Your task to perform on an android device: Show the shopping cart on target. Add "panasonic triple a" to the cart on target Image 0: 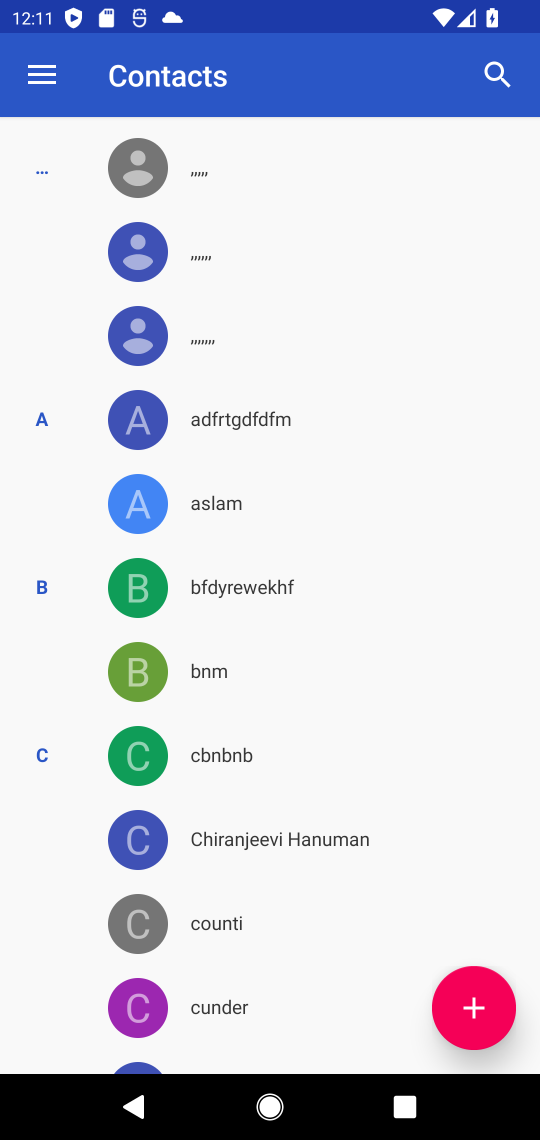
Step 0: press home button
Your task to perform on an android device: Show the shopping cart on target. Add "panasonic triple a" to the cart on target Image 1: 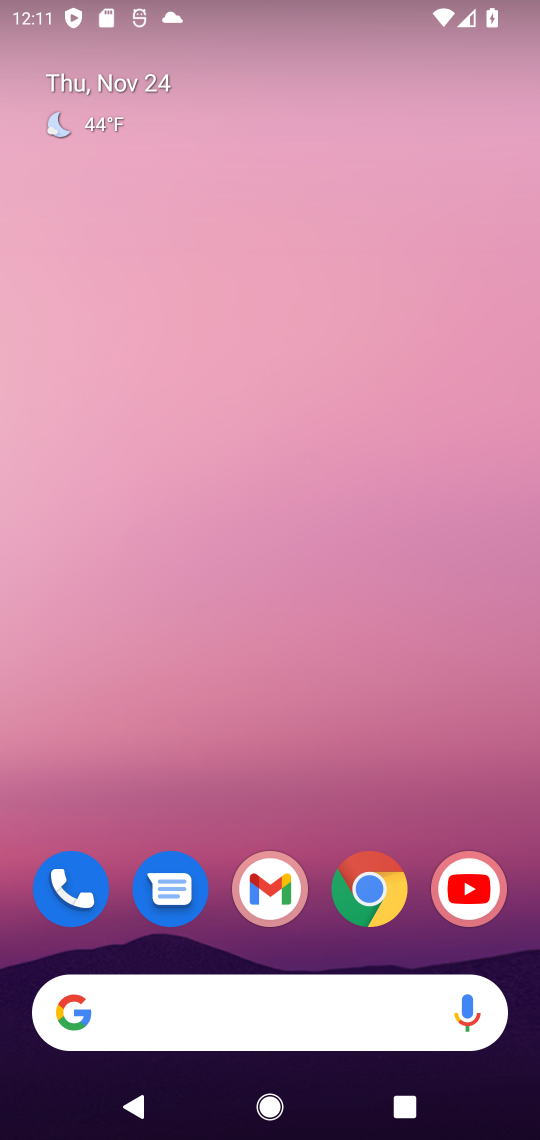
Step 1: click (374, 897)
Your task to perform on an android device: Show the shopping cart on target. Add "panasonic triple a" to the cart on target Image 2: 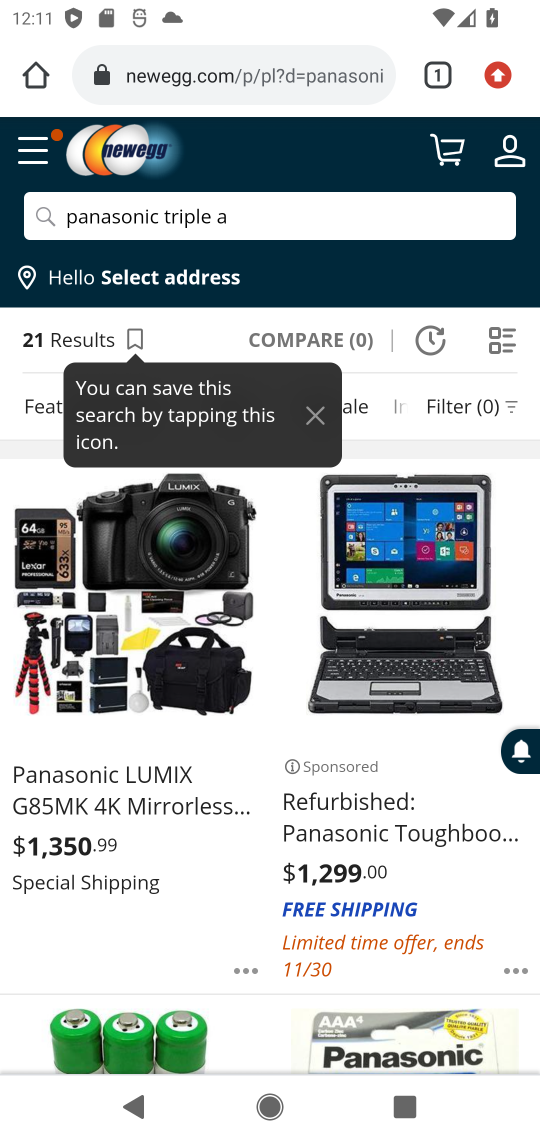
Step 2: click (200, 75)
Your task to perform on an android device: Show the shopping cart on target. Add "panasonic triple a" to the cart on target Image 3: 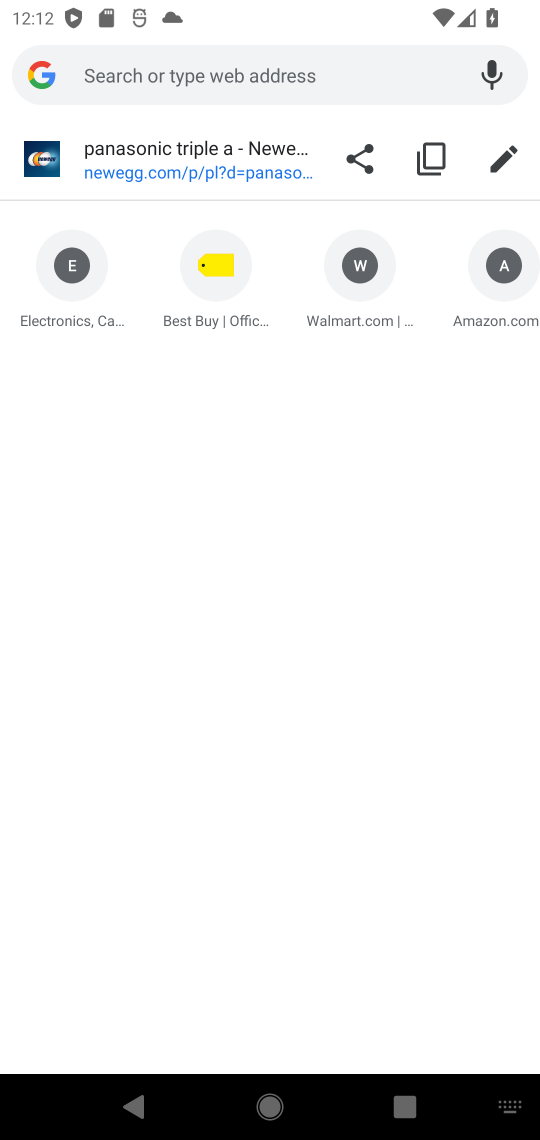
Step 3: type "target.com"
Your task to perform on an android device: Show the shopping cart on target. Add "panasonic triple a" to the cart on target Image 4: 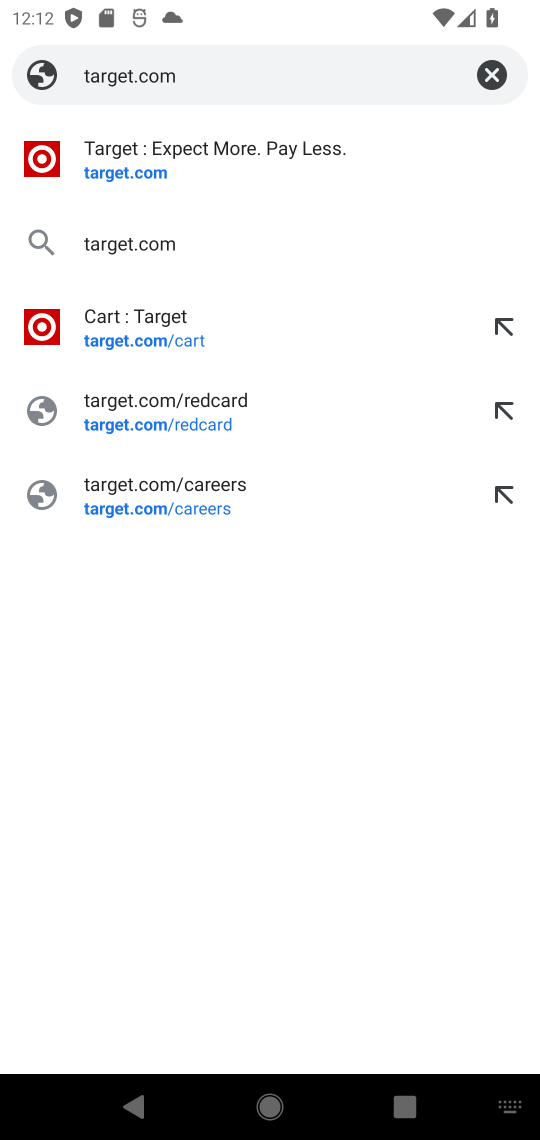
Step 4: click (113, 163)
Your task to perform on an android device: Show the shopping cart on target. Add "panasonic triple a" to the cart on target Image 5: 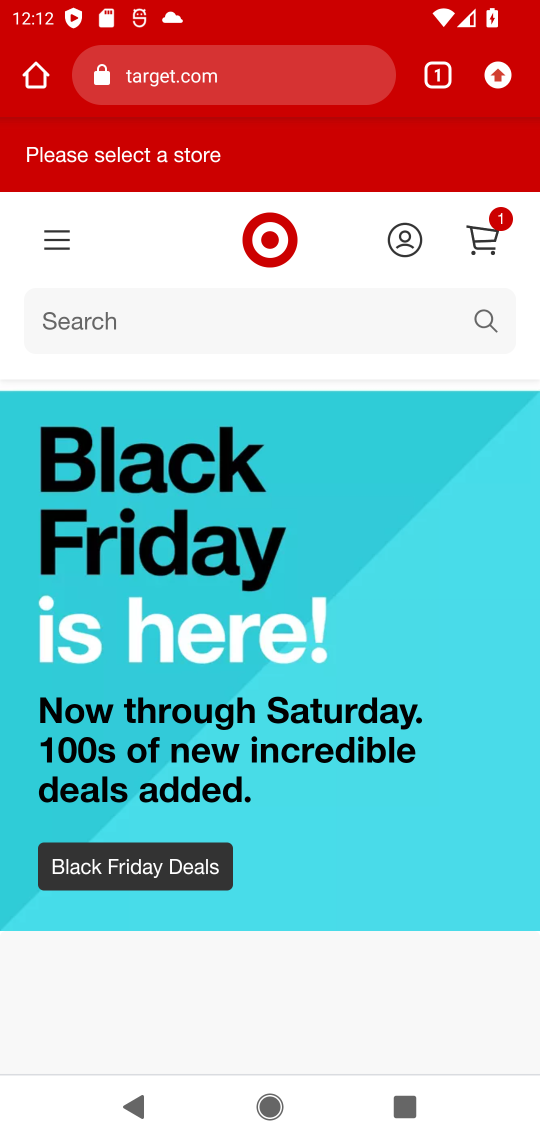
Step 5: click (474, 245)
Your task to perform on an android device: Show the shopping cart on target. Add "panasonic triple a" to the cart on target Image 6: 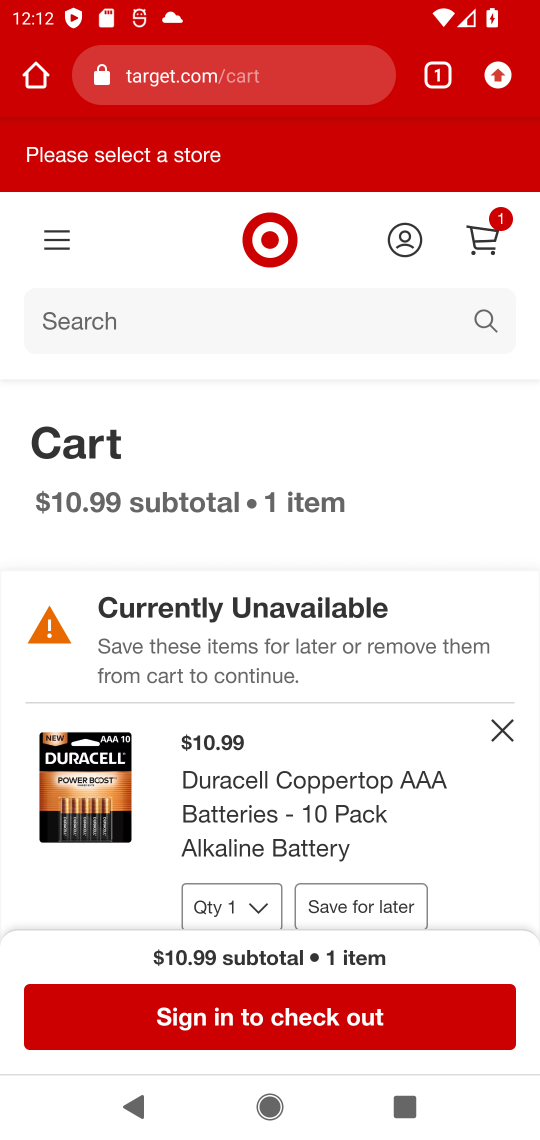
Step 6: drag from (296, 681) to (306, 501)
Your task to perform on an android device: Show the shopping cart on target. Add "panasonic triple a" to the cart on target Image 7: 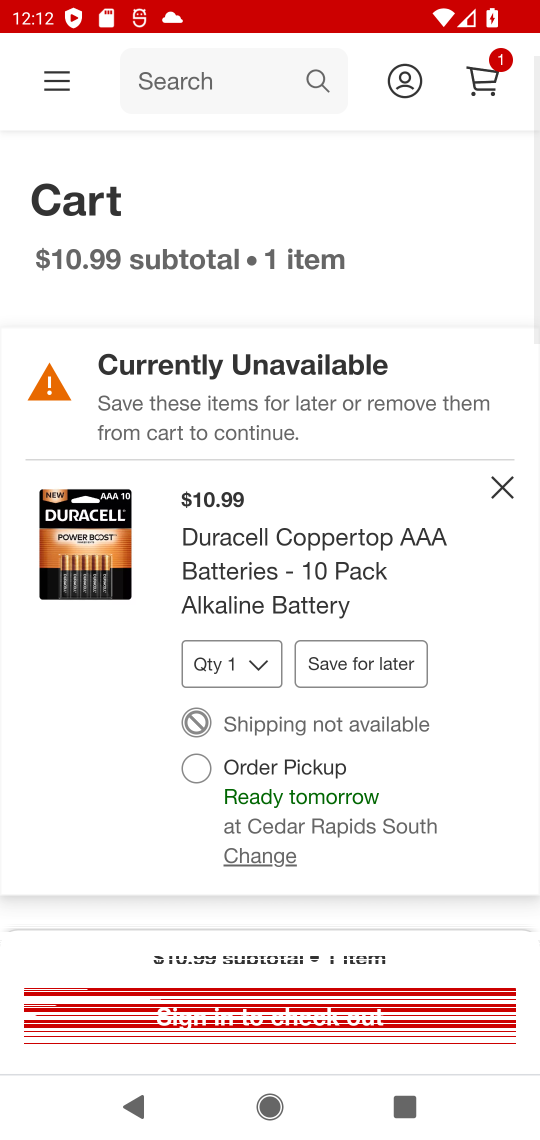
Step 7: click (316, 75)
Your task to perform on an android device: Show the shopping cart on target. Add "panasonic triple a" to the cart on target Image 8: 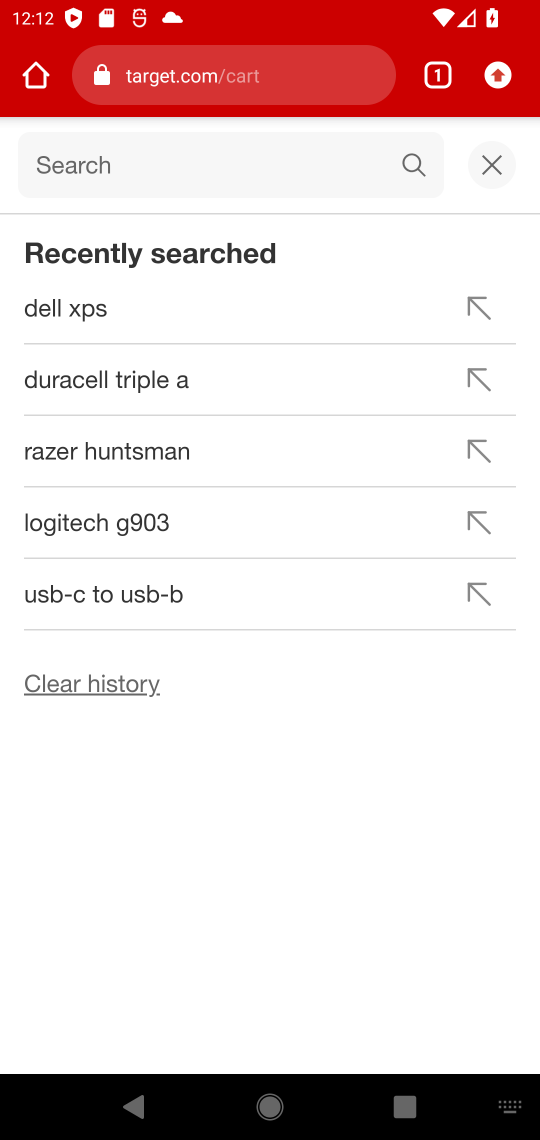
Step 8: type "panasonic triple a"
Your task to perform on an android device: Show the shopping cart on target. Add "panasonic triple a" to the cart on target Image 9: 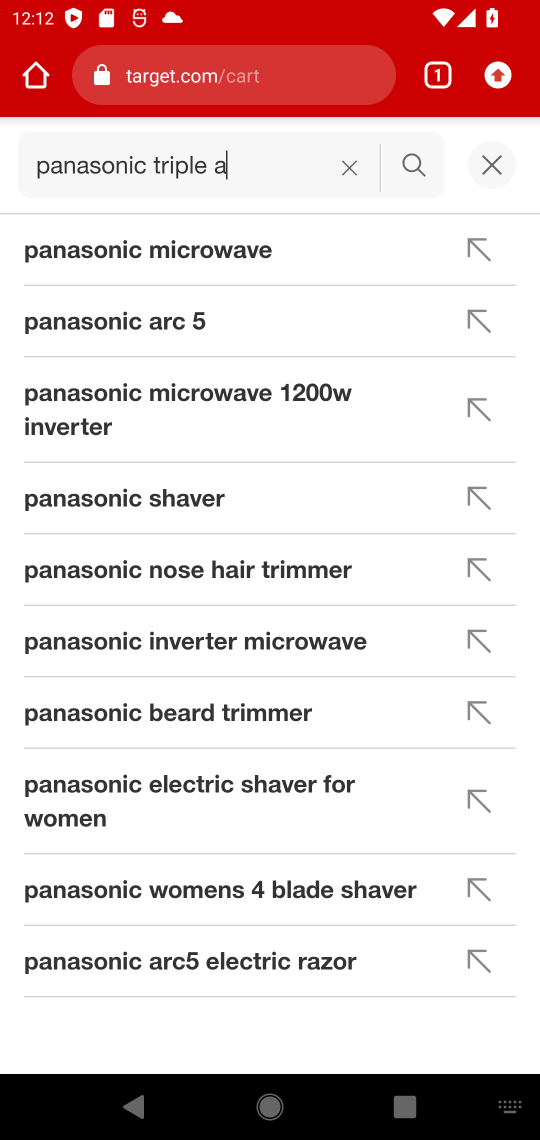
Step 9: click (411, 168)
Your task to perform on an android device: Show the shopping cart on target. Add "panasonic triple a" to the cart on target Image 10: 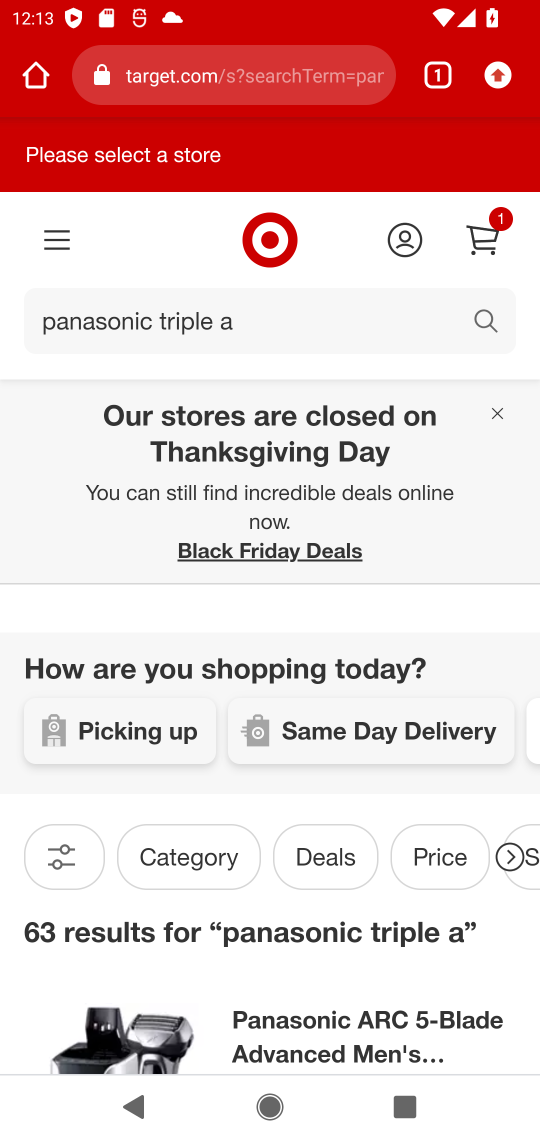
Step 10: task complete